Your task to perform on an android device: Do I have any events today? Image 0: 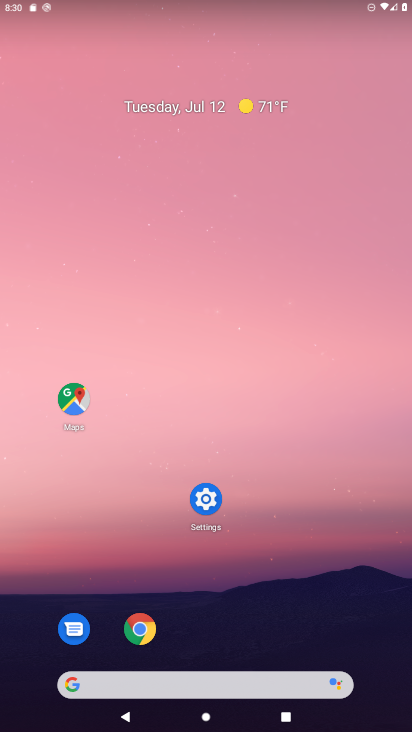
Step 0: drag from (382, 694) to (388, 99)
Your task to perform on an android device: Do I have any events today? Image 1: 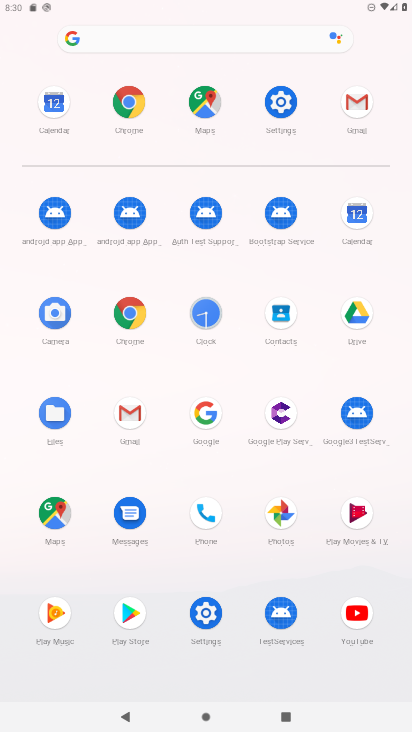
Step 1: click (355, 214)
Your task to perform on an android device: Do I have any events today? Image 2: 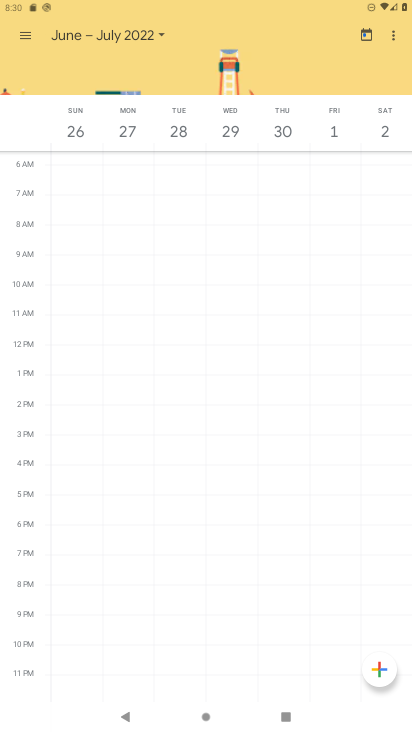
Step 2: click (22, 35)
Your task to perform on an android device: Do I have any events today? Image 3: 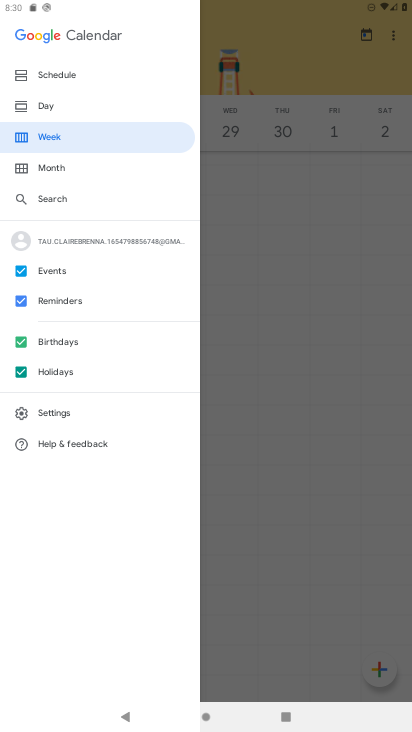
Step 3: click (48, 111)
Your task to perform on an android device: Do I have any events today? Image 4: 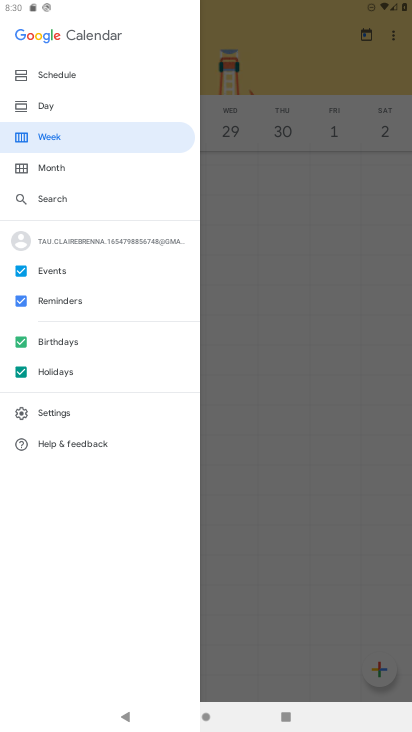
Step 4: click (41, 89)
Your task to perform on an android device: Do I have any events today? Image 5: 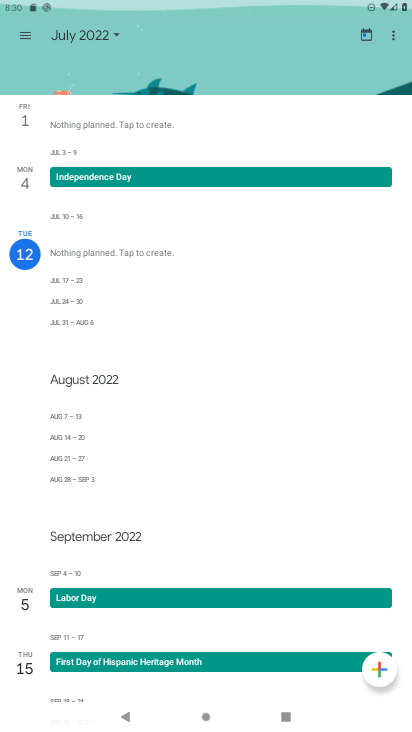
Step 5: click (20, 249)
Your task to perform on an android device: Do I have any events today? Image 6: 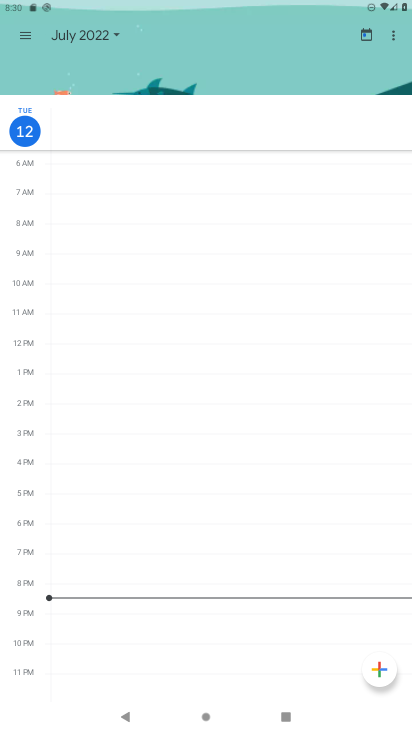
Step 6: task complete